Your task to perform on an android device: check battery use Image 0: 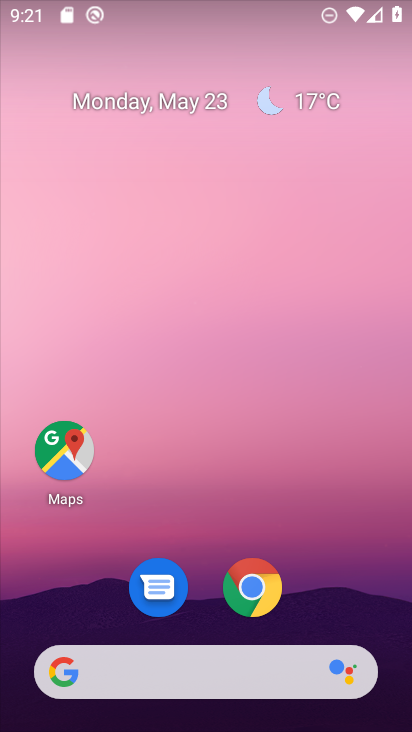
Step 0: drag from (229, 550) to (283, 0)
Your task to perform on an android device: check battery use Image 1: 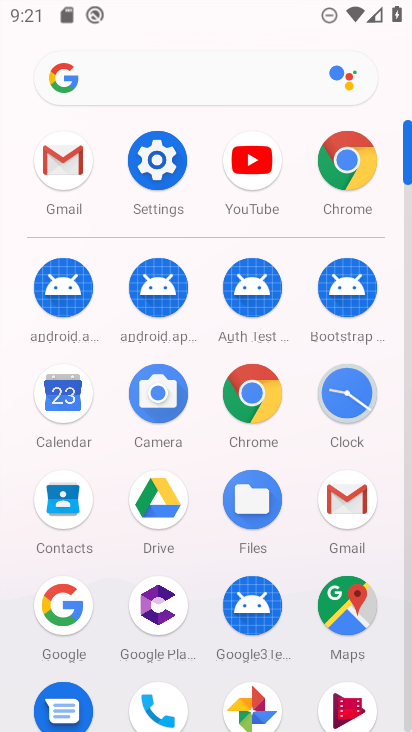
Step 1: click (146, 152)
Your task to perform on an android device: check battery use Image 2: 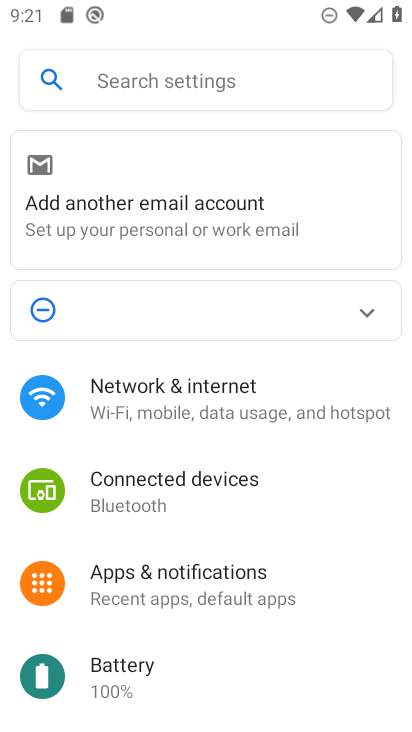
Step 2: click (124, 673)
Your task to perform on an android device: check battery use Image 3: 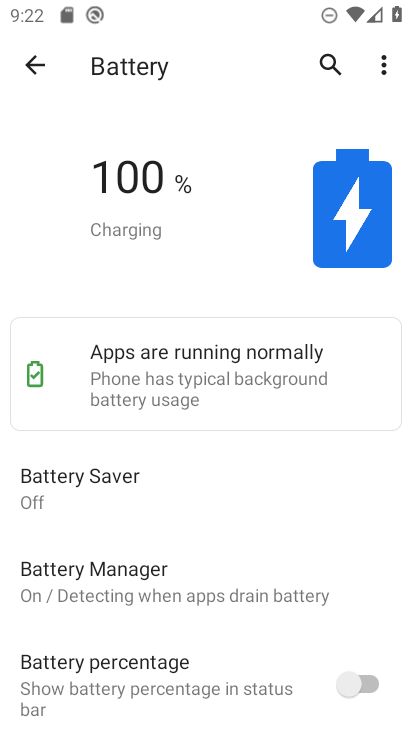
Step 3: drag from (391, 58) to (340, 116)
Your task to perform on an android device: check battery use Image 4: 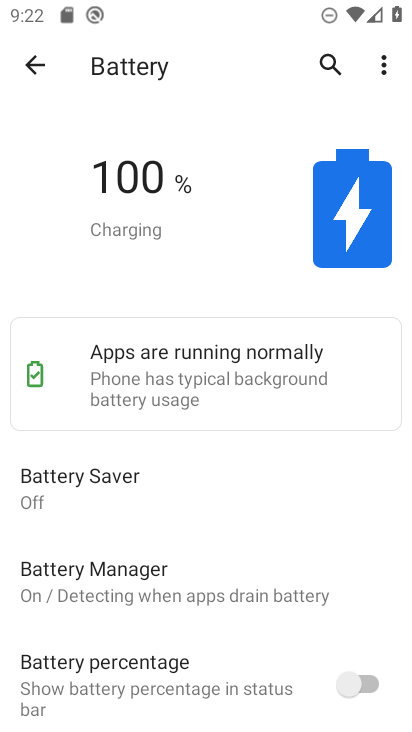
Step 4: click (254, 248)
Your task to perform on an android device: check battery use Image 5: 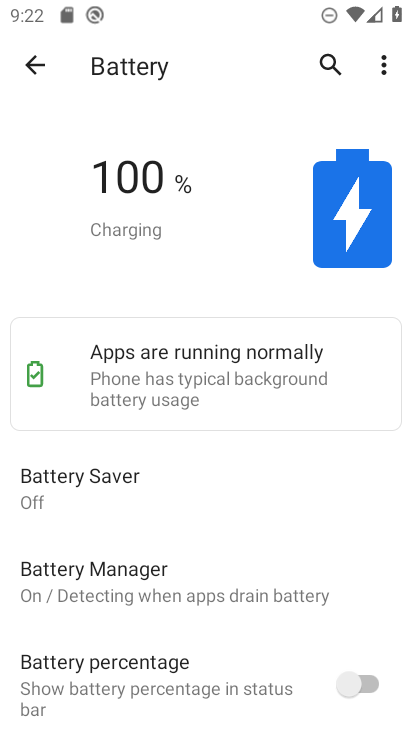
Step 5: click (388, 61)
Your task to perform on an android device: check battery use Image 6: 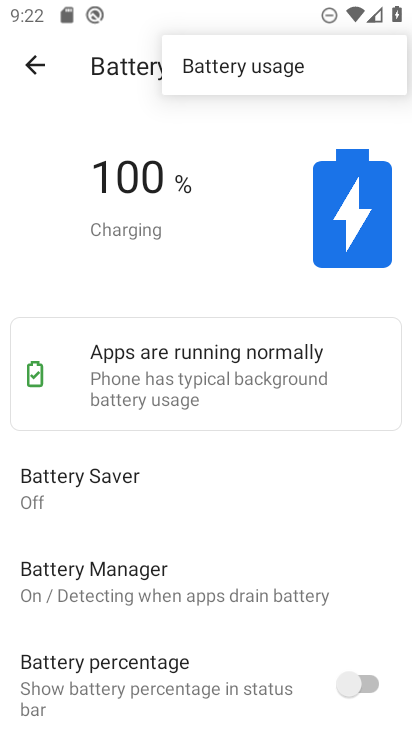
Step 6: click (274, 59)
Your task to perform on an android device: check battery use Image 7: 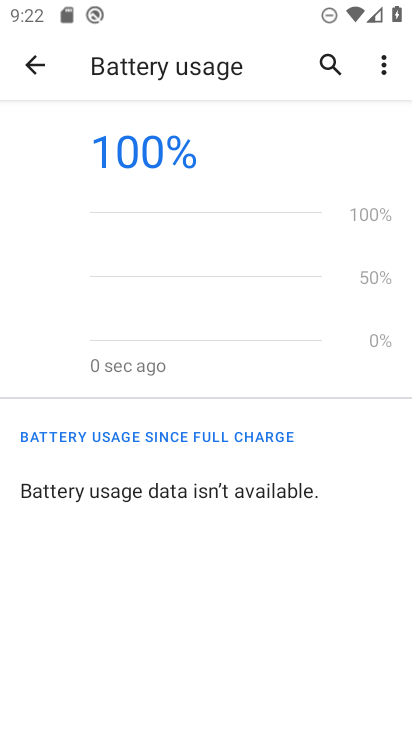
Step 7: task complete